Your task to perform on an android device: all mails in gmail Image 0: 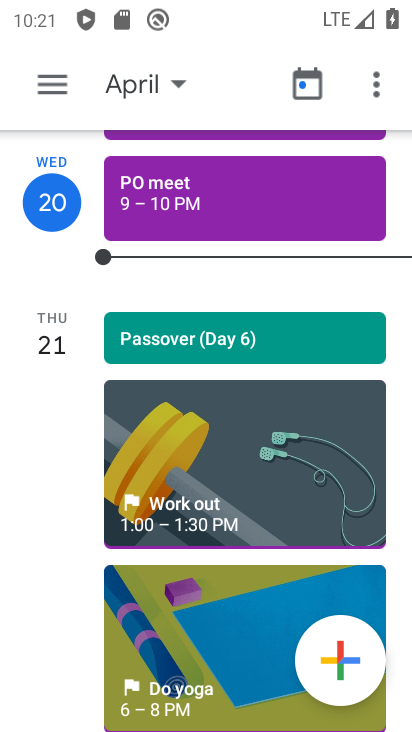
Step 0: press home button
Your task to perform on an android device: all mails in gmail Image 1: 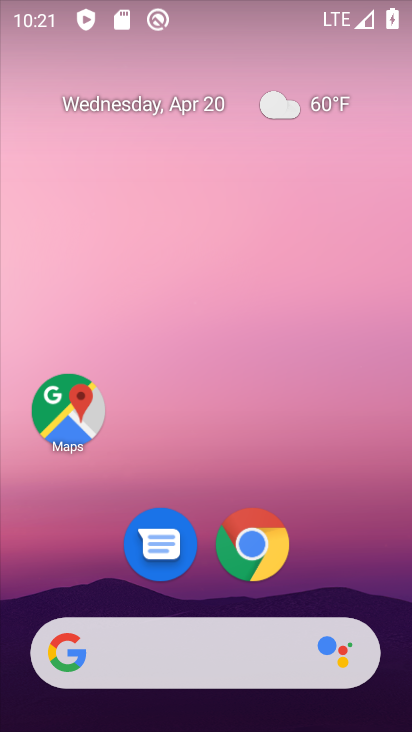
Step 1: drag from (355, 564) to (331, 71)
Your task to perform on an android device: all mails in gmail Image 2: 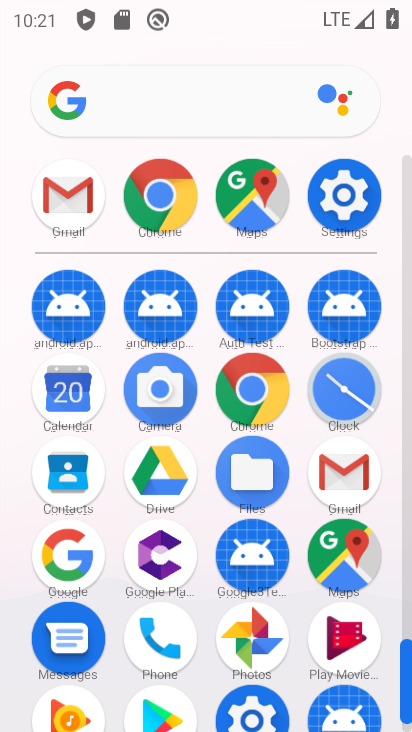
Step 2: click (74, 187)
Your task to perform on an android device: all mails in gmail Image 3: 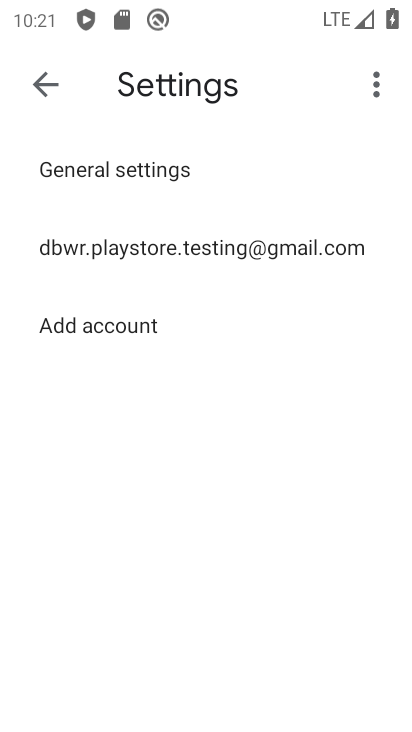
Step 3: click (40, 77)
Your task to perform on an android device: all mails in gmail Image 4: 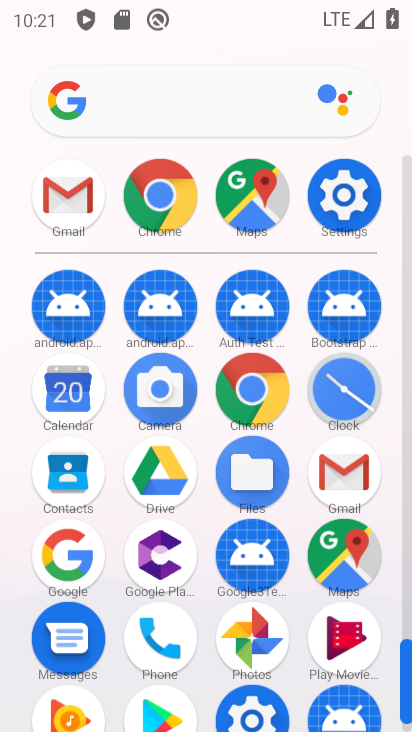
Step 4: click (77, 196)
Your task to perform on an android device: all mails in gmail Image 5: 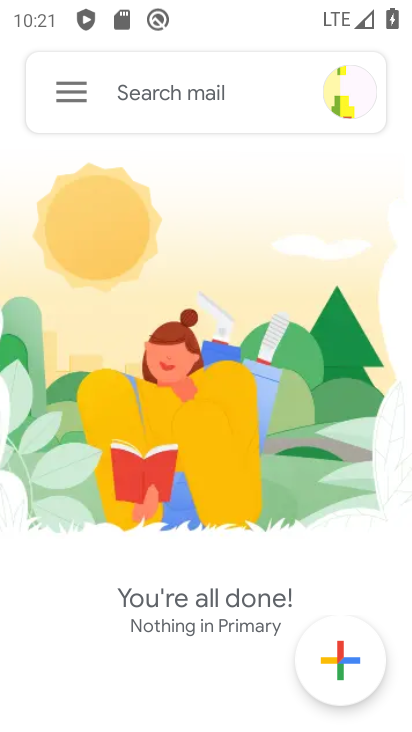
Step 5: click (72, 99)
Your task to perform on an android device: all mails in gmail Image 6: 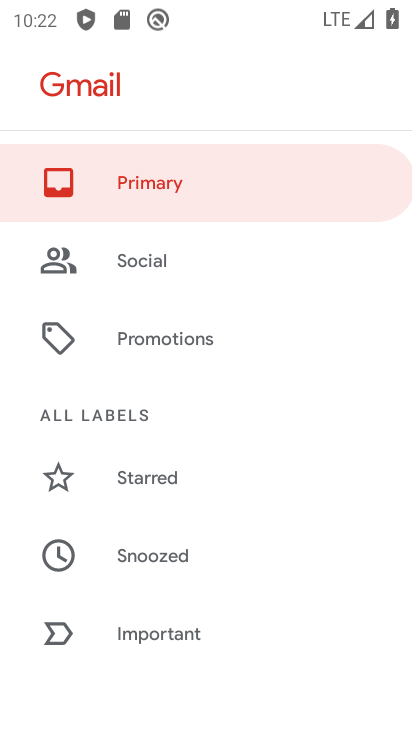
Step 6: drag from (275, 554) to (286, 128)
Your task to perform on an android device: all mails in gmail Image 7: 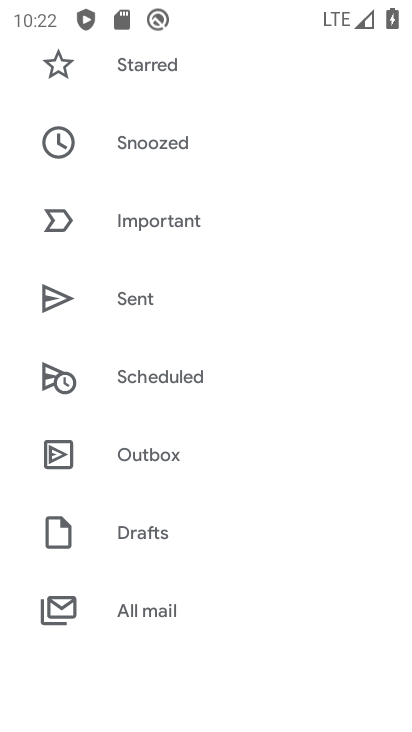
Step 7: click (279, 619)
Your task to perform on an android device: all mails in gmail Image 8: 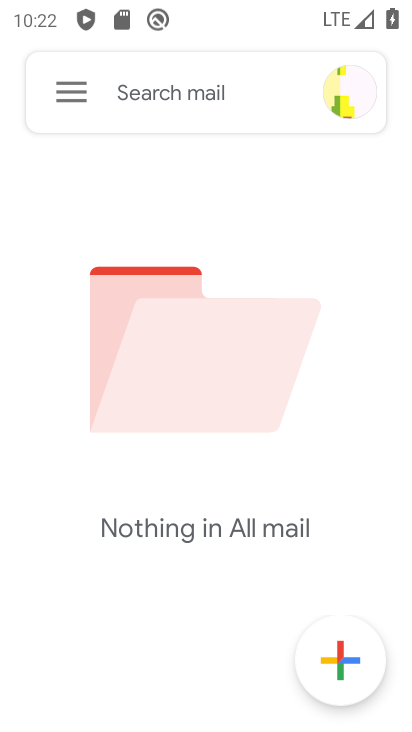
Step 8: task complete